Your task to perform on an android device: Open Google Chrome Image 0: 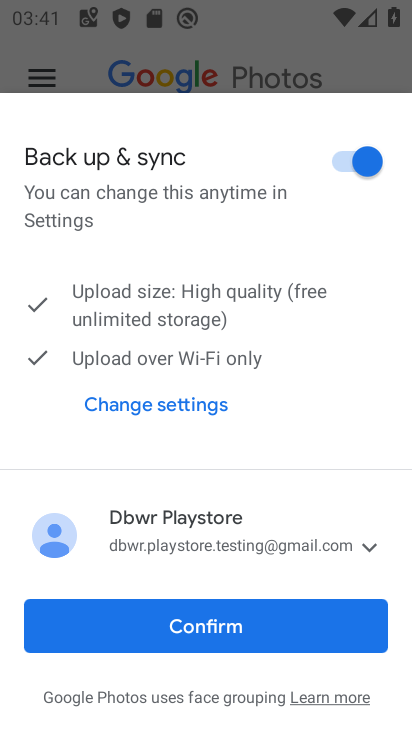
Step 0: press home button
Your task to perform on an android device: Open Google Chrome Image 1: 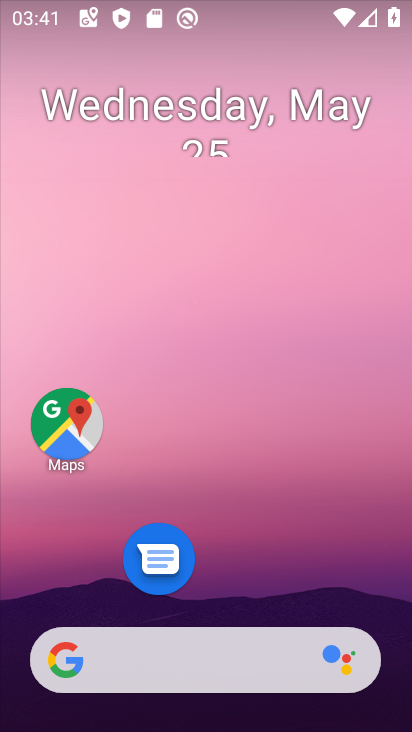
Step 1: drag from (229, 599) to (237, 26)
Your task to perform on an android device: Open Google Chrome Image 2: 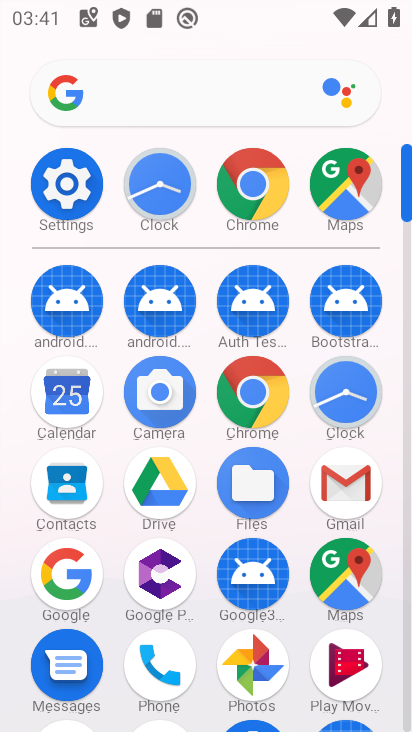
Step 2: click (252, 175)
Your task to perform on an android device: Open Google Chrome Image 3: 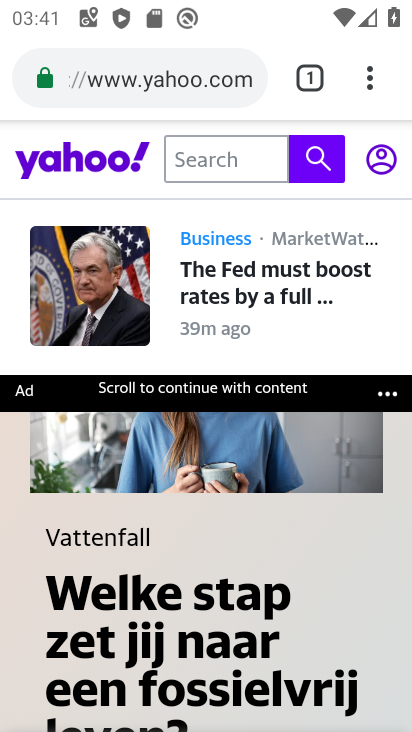
Step 3: click (310, 72)
Your task to perform on an android device: Open Google Chrome Image 4: 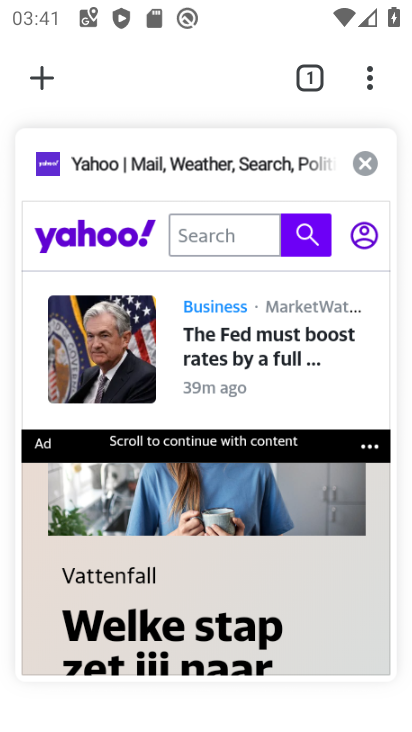
Step 4: click (366, 155)
Your task to perform on an android device: Open Google Chrome Image 5: 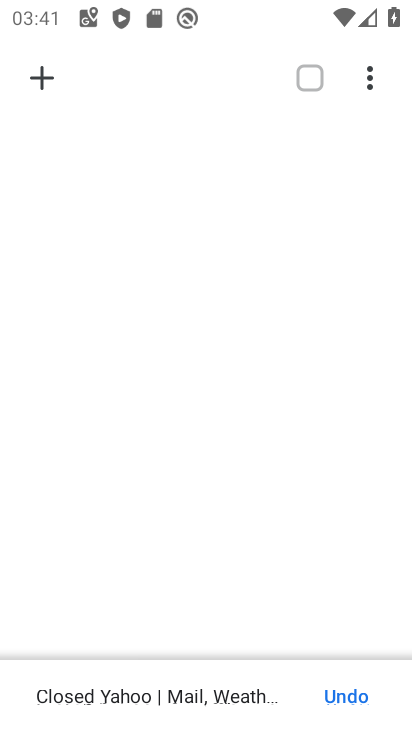
Step 5: click (43, 78)
Your task to perform on an android device: Open Google Chrome Image 6: 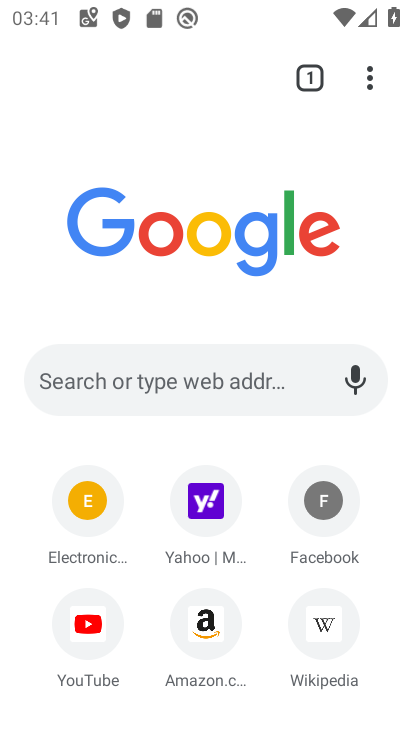
Step 6: task complete